Your task to perform on an android device: Open sound settings Image 0: 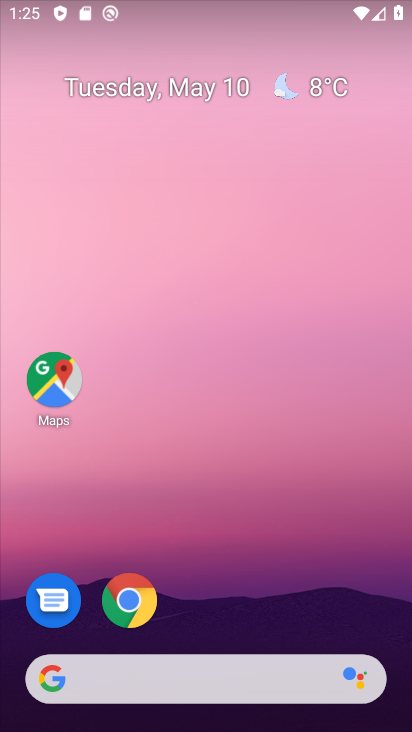
Step 0: drag from (208, 620) to (268, 75)
Your task to perform on an android device: Open sound settings Image 1: 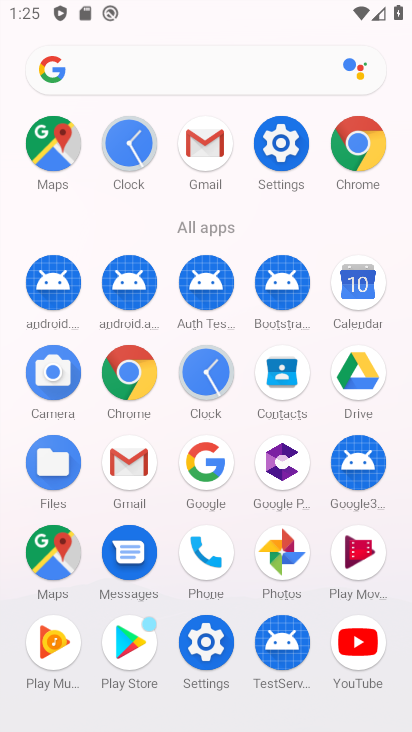
Step 1: click (276, 135)
Your task to perform on an android device: Open sound settings Image 2: 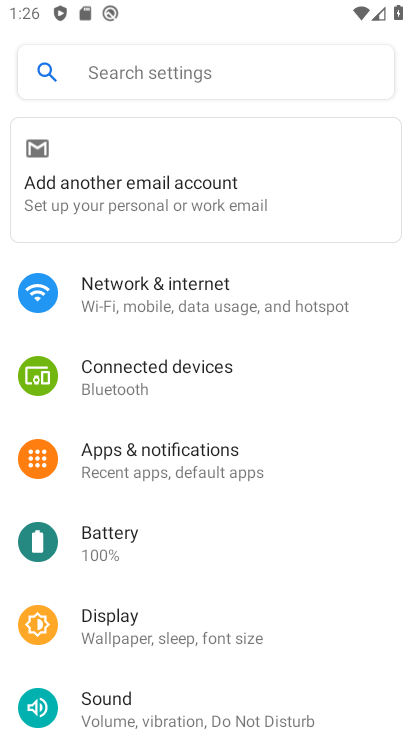
Step 2: click (153, 700)
Your task to perform on an android device: Open sound settings Image 3: 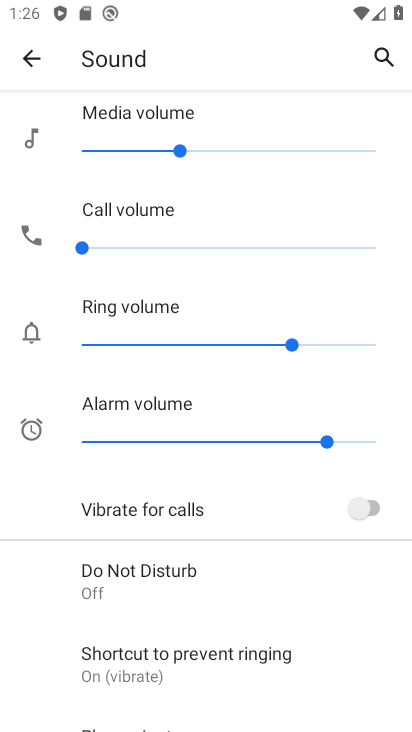
Step 3: drag from (216, 630) to (324, 65)
Your task to perform on an android device: Open sound settings Image 4: 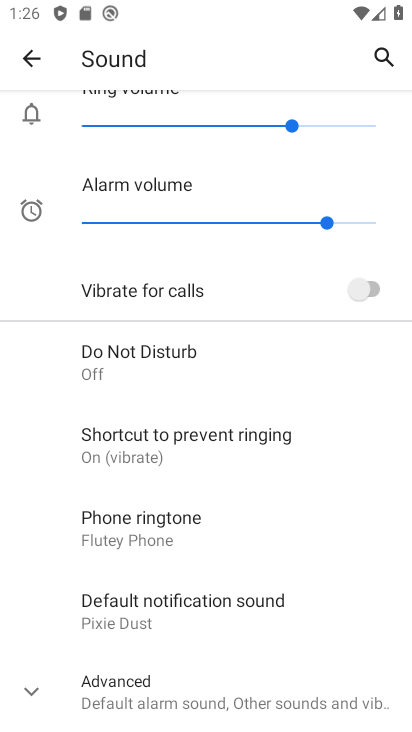
Step 4: click (52, 686)
Your task to perform on an android device: Open sound settings Image 5: 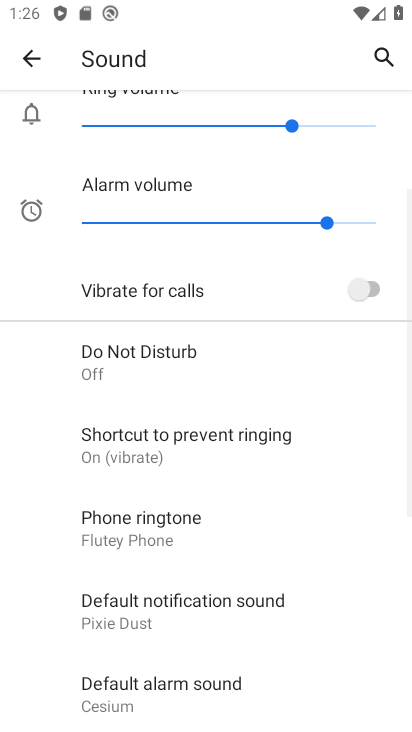
Step 5: task complete